Your task to perform on an android device: toggle notifications settings in the gmail app Image 0: 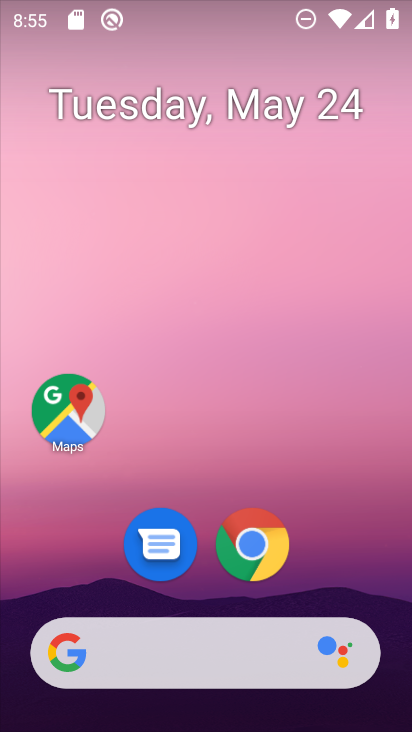
Step 0: drag from (348, 594) to (248, 186)
Your task to perform on an android device: toggle notifications settings in the gmail app Image 1: 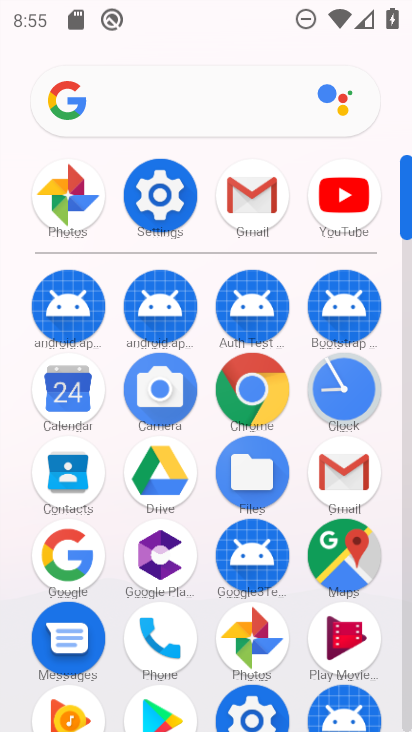
Step 1: click (257, 189)
Your task to perform on an android device: toggle notifications settings in the gmail app Image 2: 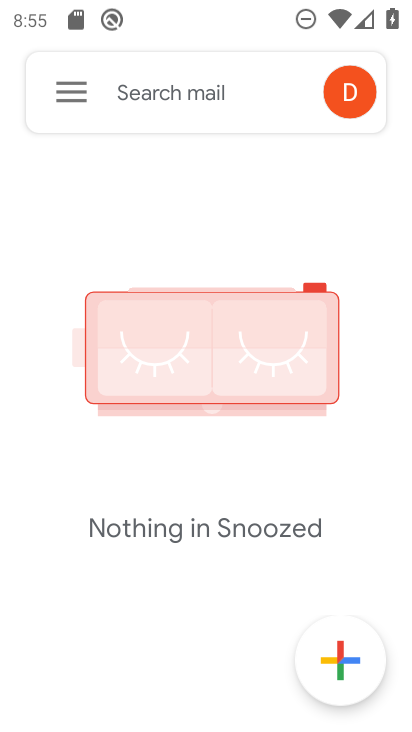
Step 2: click (65, 104)
Your task to perform on an android device: toggle notifications settings in the gmail app Image 3: 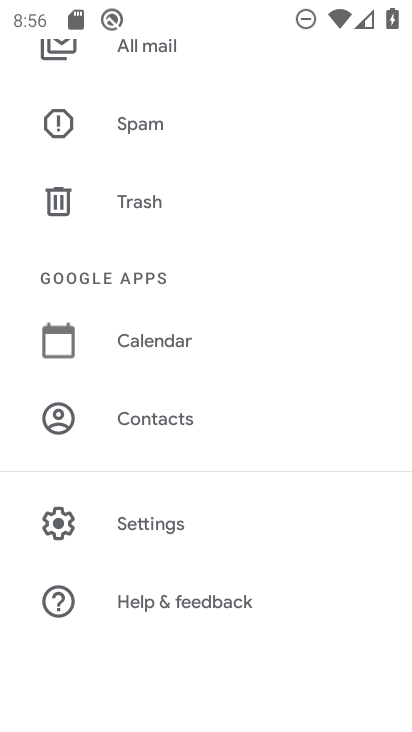
Step 3: click (171, 527)
Your task to perform on an android device: toggle notifications settings in the gmail app Image 4: 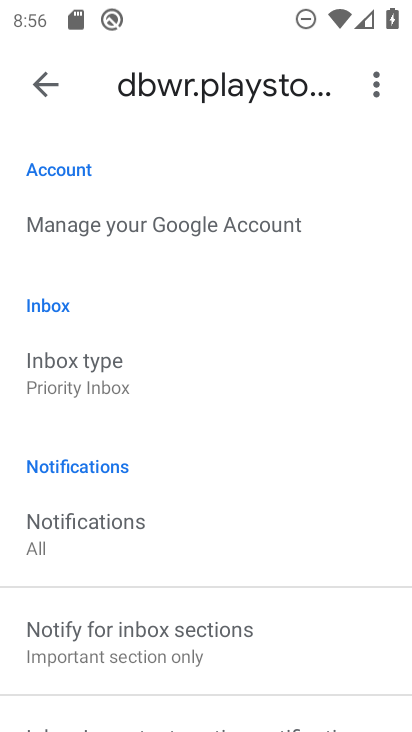
Step 4: drag from (174, 455) to (155, 350)
Your task to perform on an android device: toggle notifications settings in the gmail app Image 5: 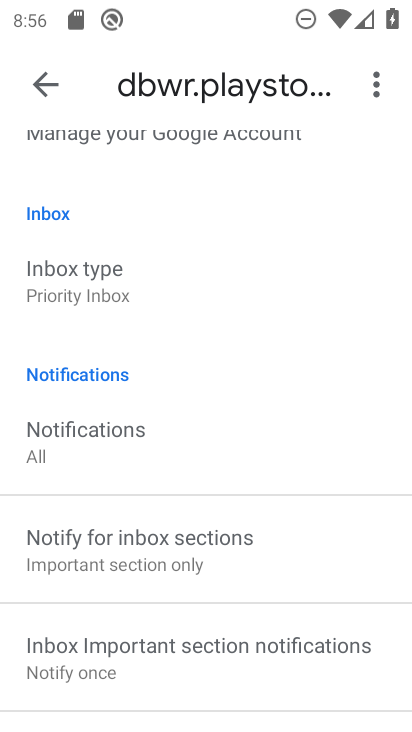
Step 5: drag from (159, 680) to (131, 266)
Your task to perform on an android device: toggle notifications settings in the gmail app Image 6: 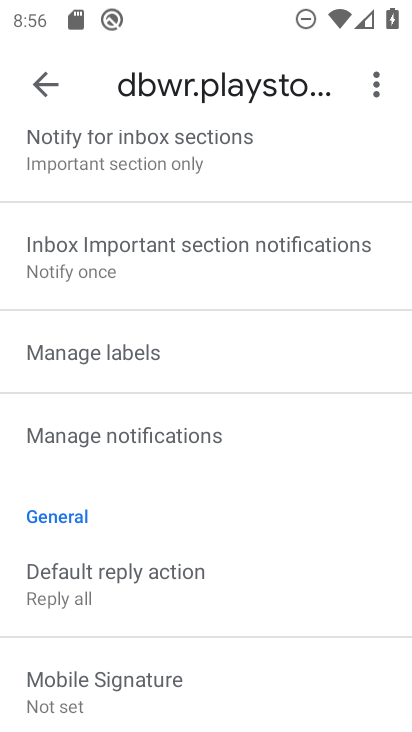
Step 6: click (183, 441)
Your task to perform on an android device: toggle notifications settings in the gmail app Image 7: 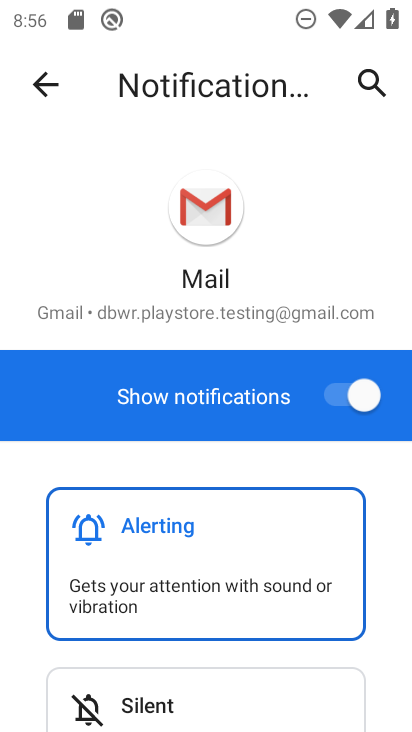
Step 7: drag from (392, 656) to (348, 277)
Your task to perform on an android device: toggle notifications settings in the gmail app Image 8: 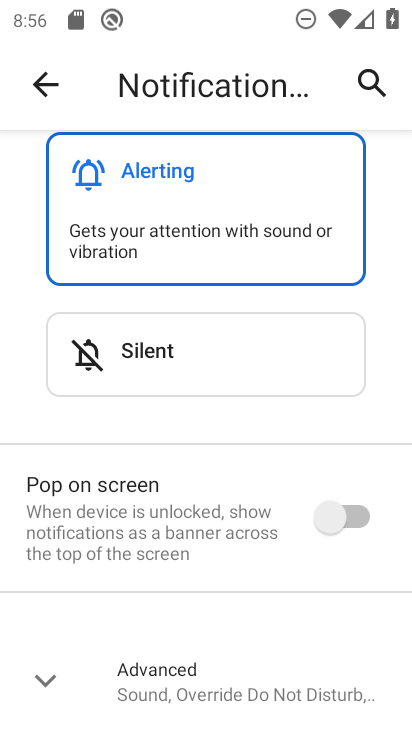
Step 8: click (307, 339)
Your task to perform on an android device: toggle notifications settings in the gmail app Image 9: 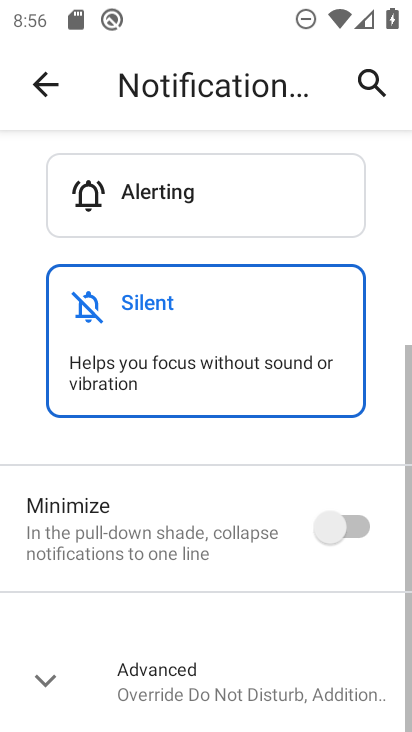
Step 9: click (345, 526)
Your task to perform on an android device: toggle notifications settings in the gmail app Image 10: 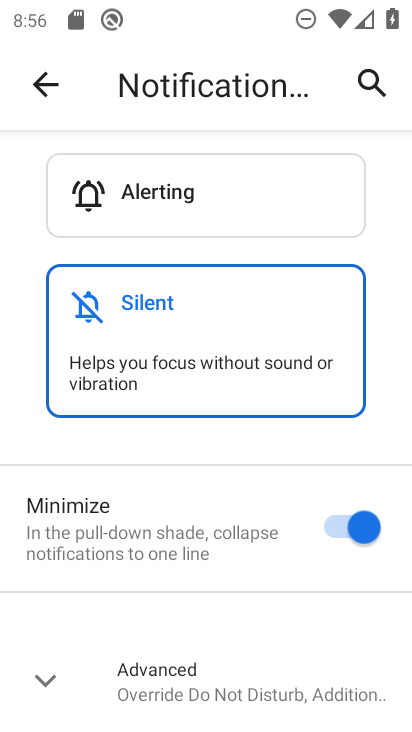
Step 10: task complete